Your task to perform on an android device: turn on translation in the chrome app Image 0: 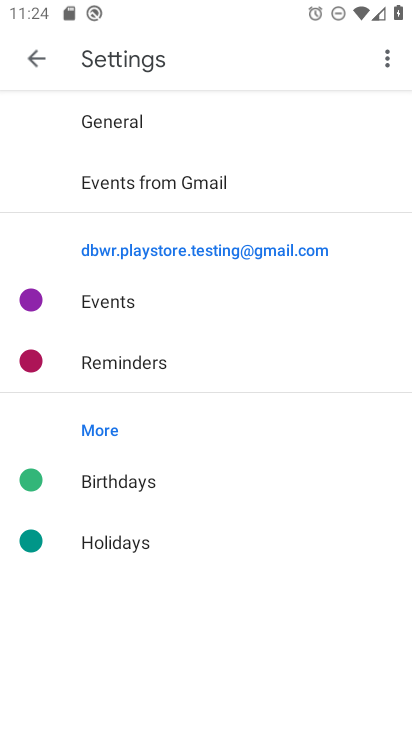
Step 0: press home button
Your task to perform on an android device: turn on translation in the chrome app Image 1: 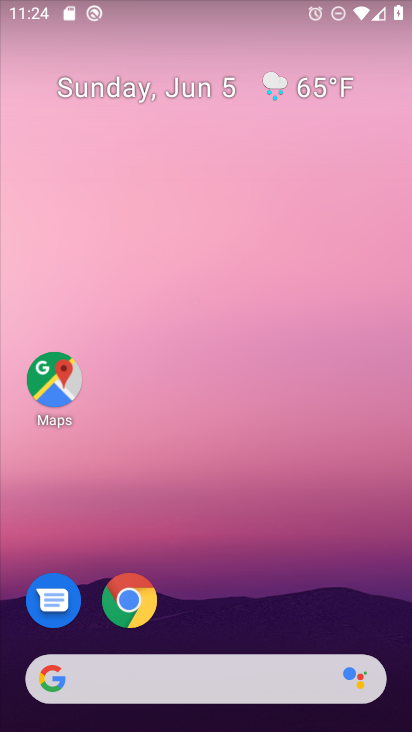
Step 1: drag from (387, 638) to (261, 8)
Your task to perform on an android device: turn on translation in the chrome app Image 2: 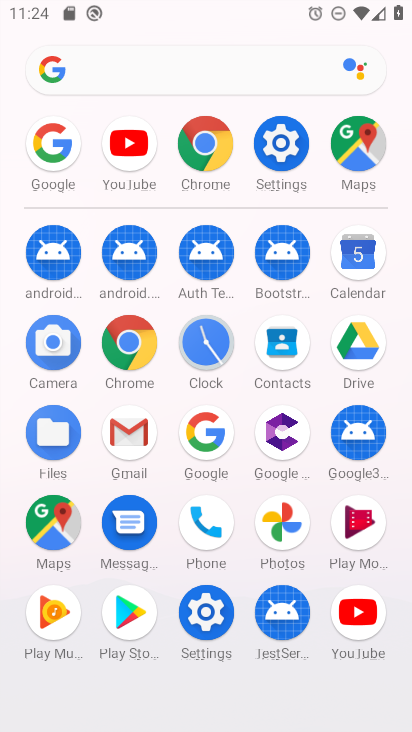
Step 2: click (205, 135)
Your task to perform on an android device: turn on translation in the chrome app Image 3: 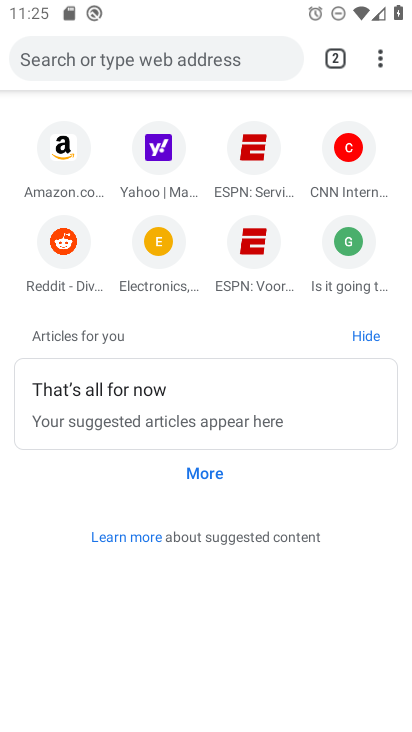
Step 3: click (376, 51)
Your task to perform on an android device: turn on translation in the chrome app Image 4: 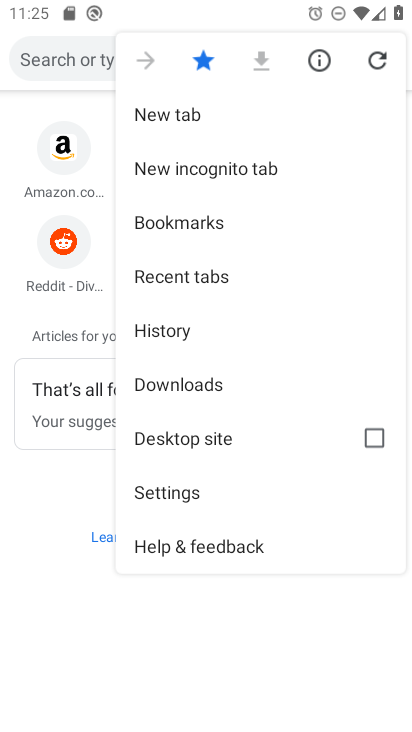
Step 4: click (227, 485)
Your task to perform on an android device: turn on translation in the chrome app Image 5: 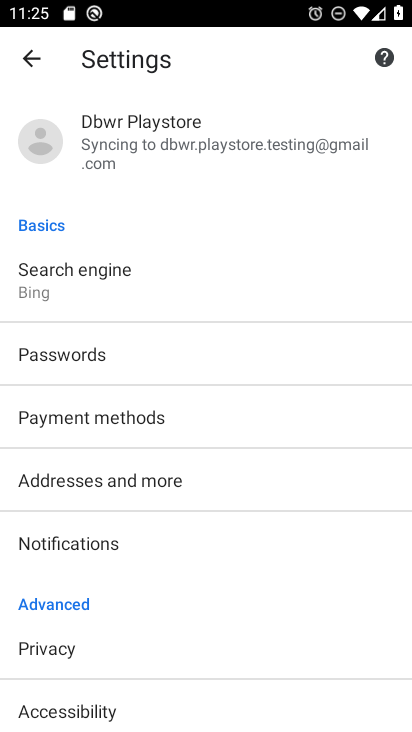
Step 5: click (163, 685)
Your task to perform on an android device: turn on translation in the chrome app Image 6: 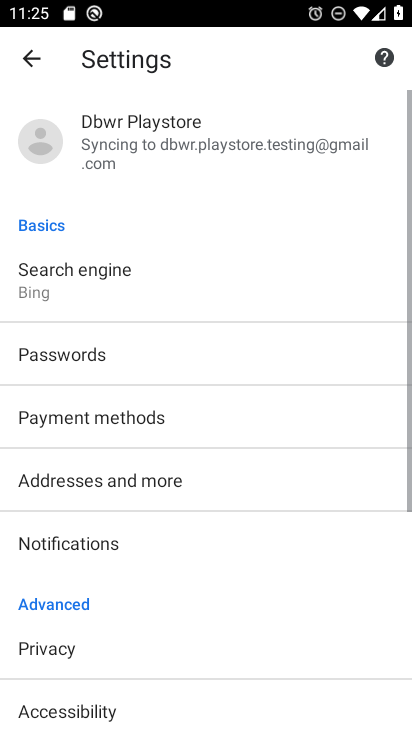
Step 6: drag from (203, 516) to (240, 175)
Your task to perform on an android device: turn on translation in the chrome app Image 7: 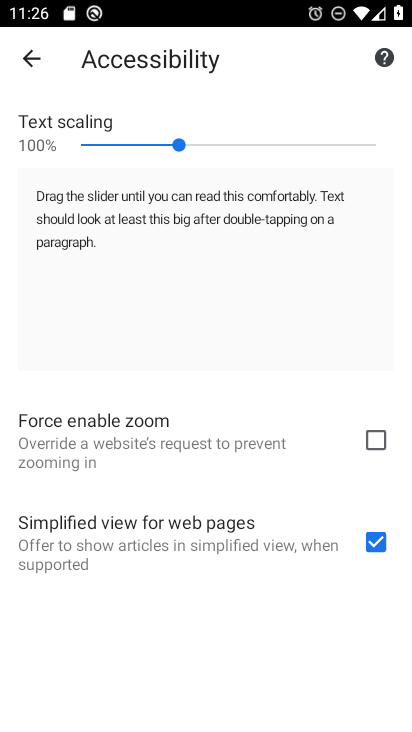
Step 7: press back button
Your task to perform on an android device: turn on translation in the chrome app Image 8: 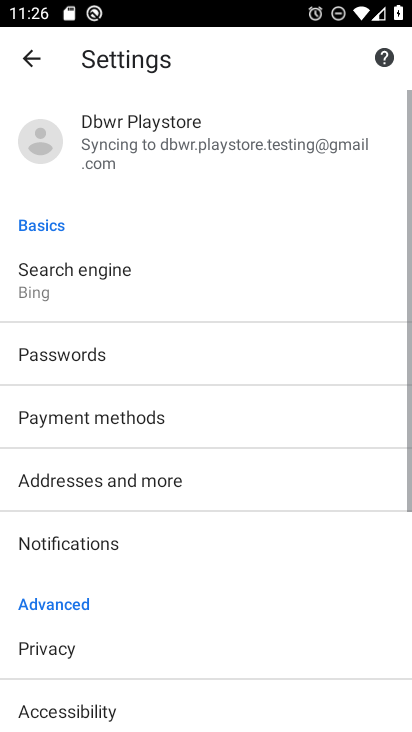
Step 8: drag from (208, 593) to (150, 103)
Your task to perform on an android device: turn on translation in the chrome app Image 9: 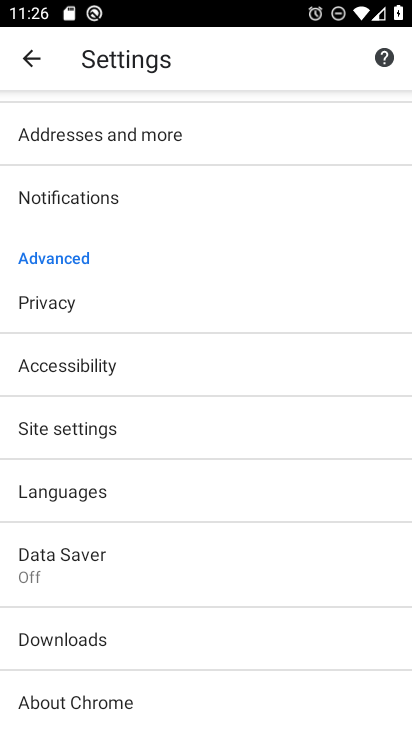
Step 9: click (119, 494)
Your task to perform on an android device: turn on translation in the chrome app Image 10: 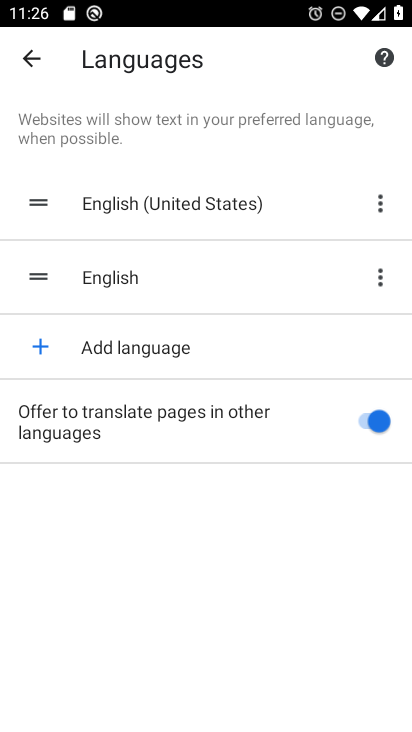
Step 10: task complete